Your task to perform on an android device: empty trash in the gmail app Image 0: 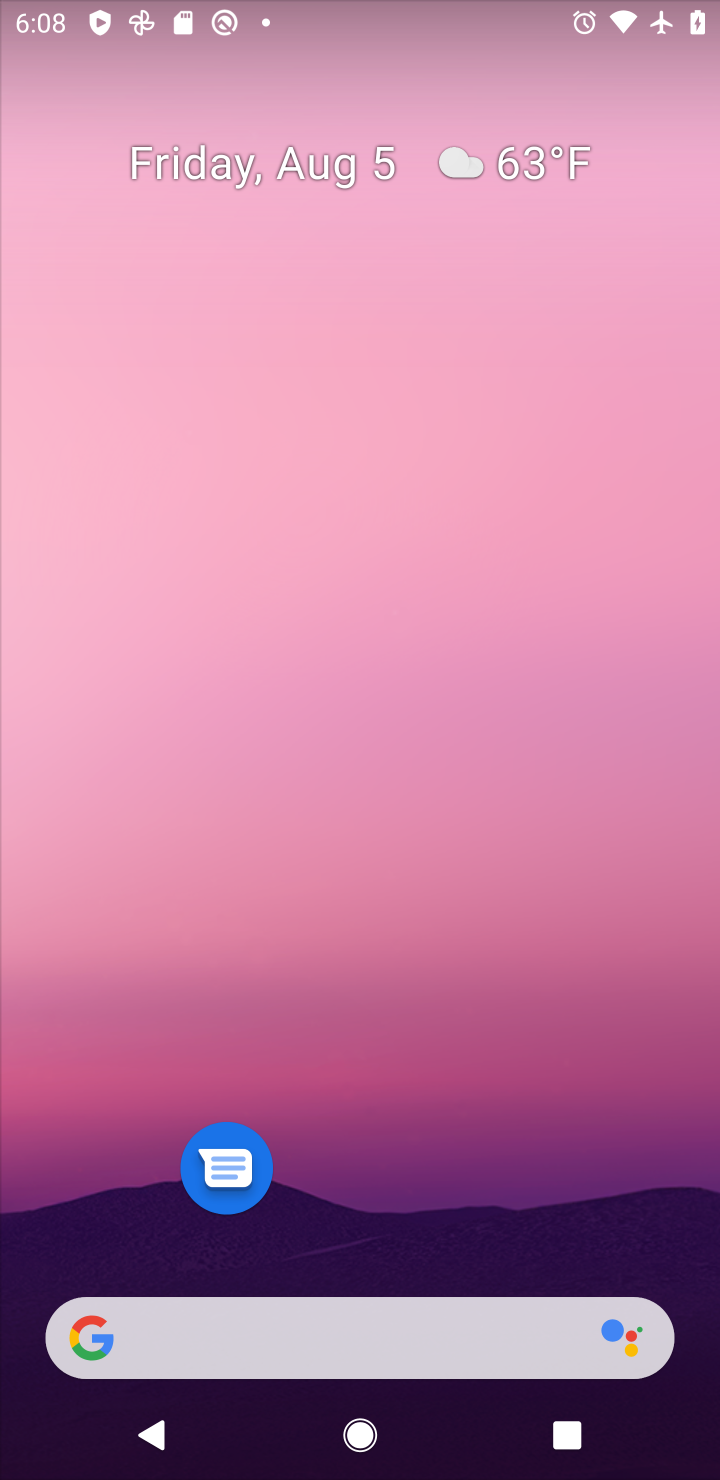
Step 0: press home button
Your task to perform on an android device: empty trash in the gmail app Image 1: 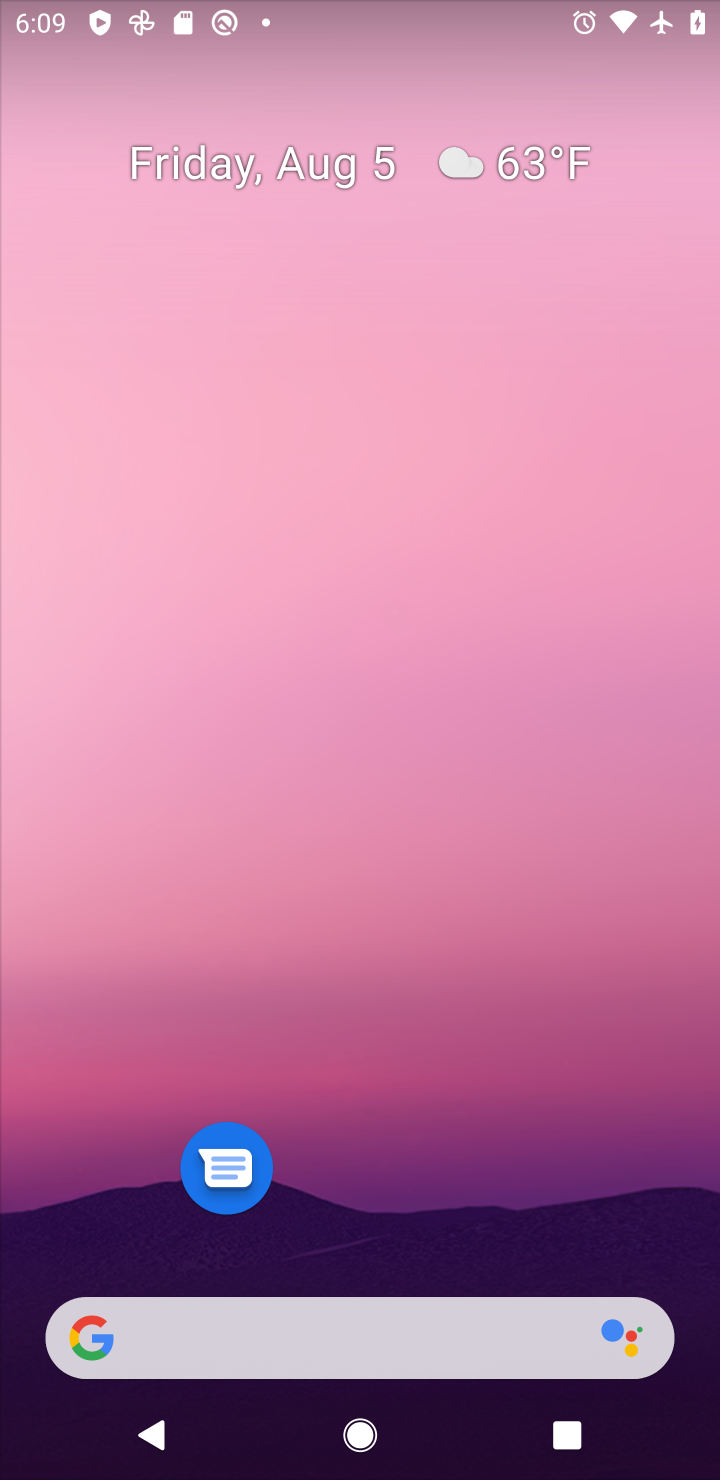
Step 1: drag from (376, 1261) to (457, 62)
Your task to perform on an android device: empty trash in the gmail app Image 2: 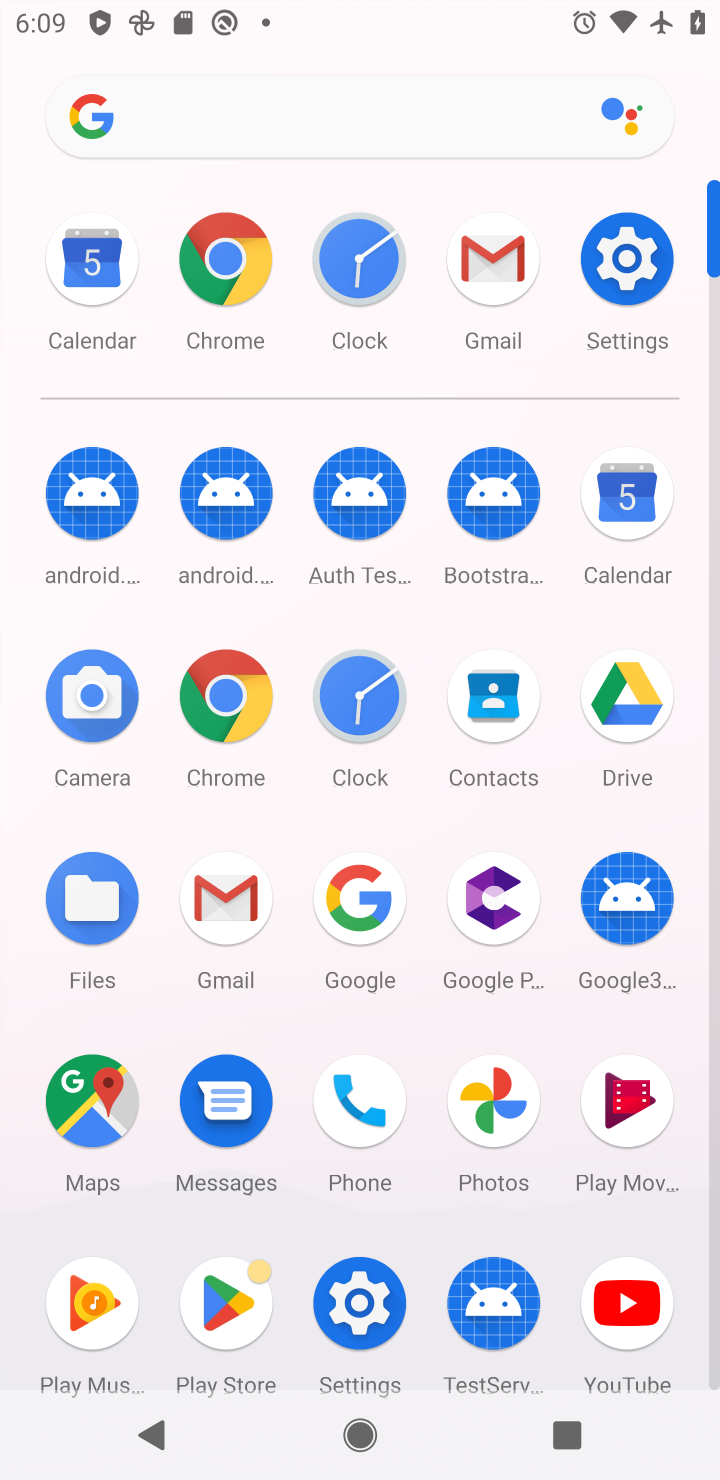
Step 2: click (223, 904)
Your task to perform on an android device: empty trash in the gmail app Image 3: 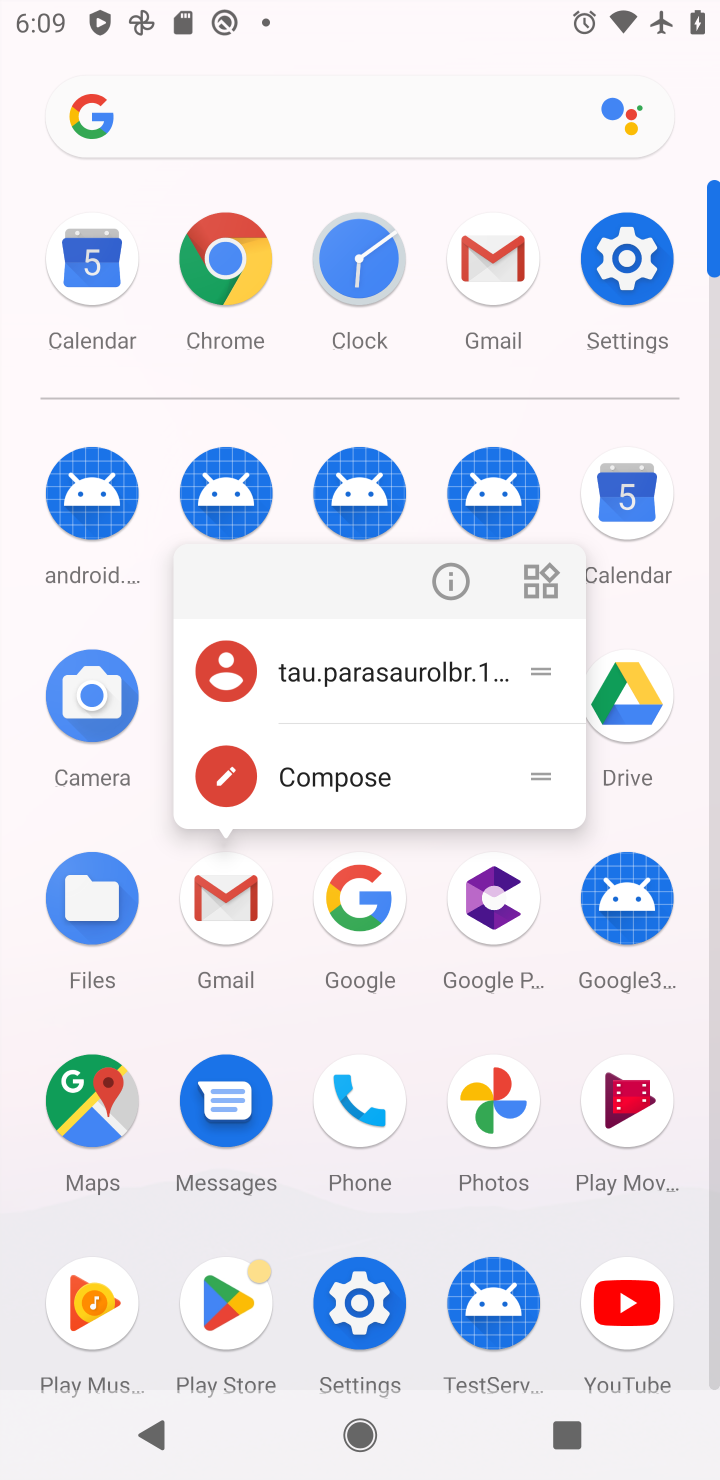
Step 3: click (223, 904)
Your task to perform on an android device: empty trash in the gmail app Image 4: 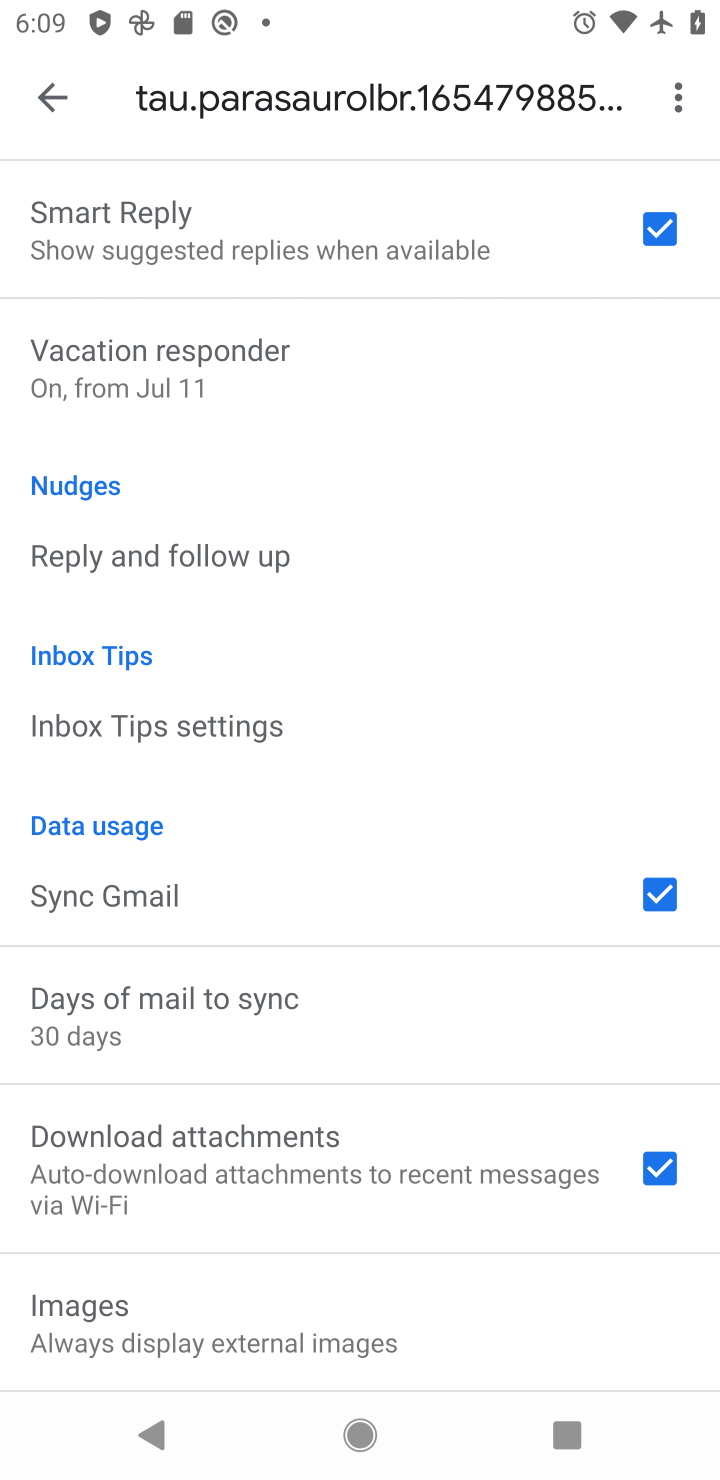
Step 4: click (56, 102)
Your task to perform on an android device: empty trash in the gmail app Image 5: 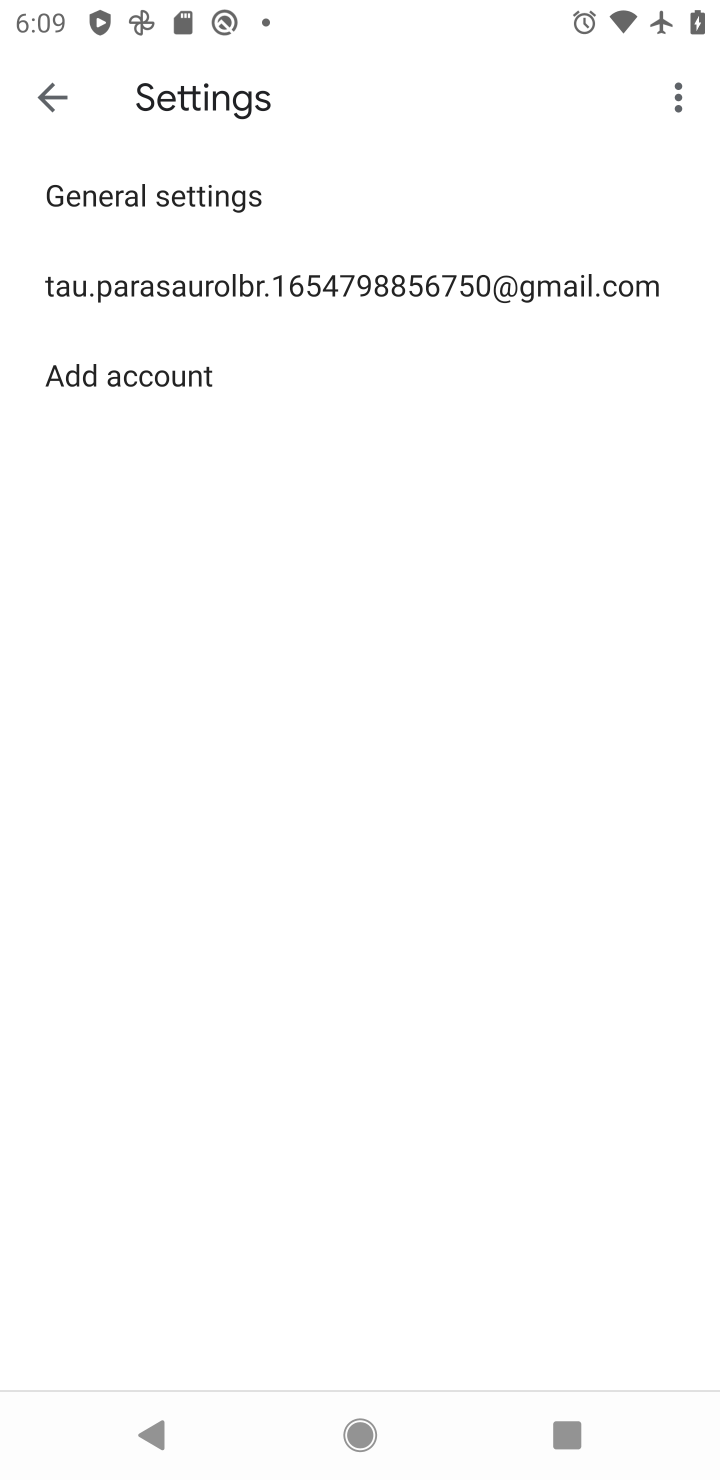
Step 5: click (56, 101)
Your task to perform on an android device: empty trash in the gmail app Image 6: 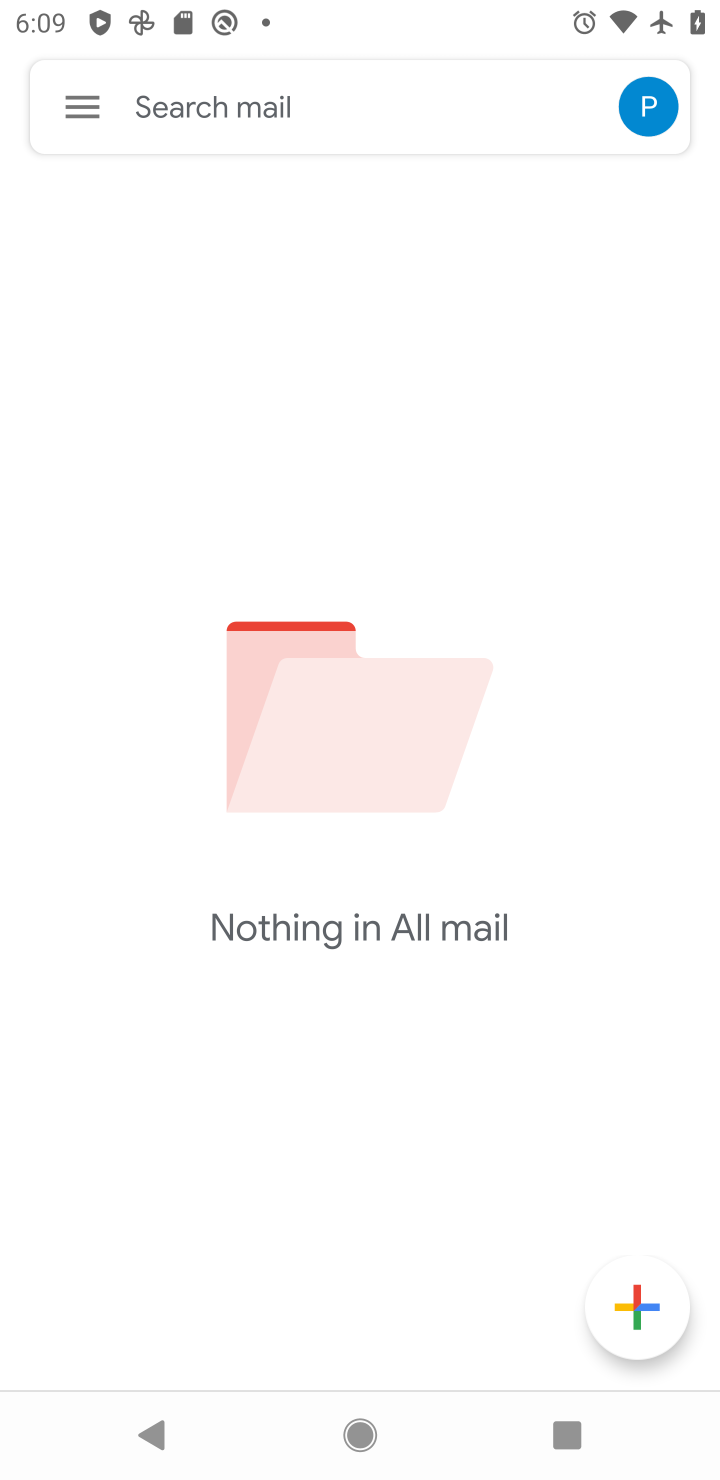
Step 6: click (70, 108)
Your task to perform on an android device: empty trash in the gmail app Image 7: 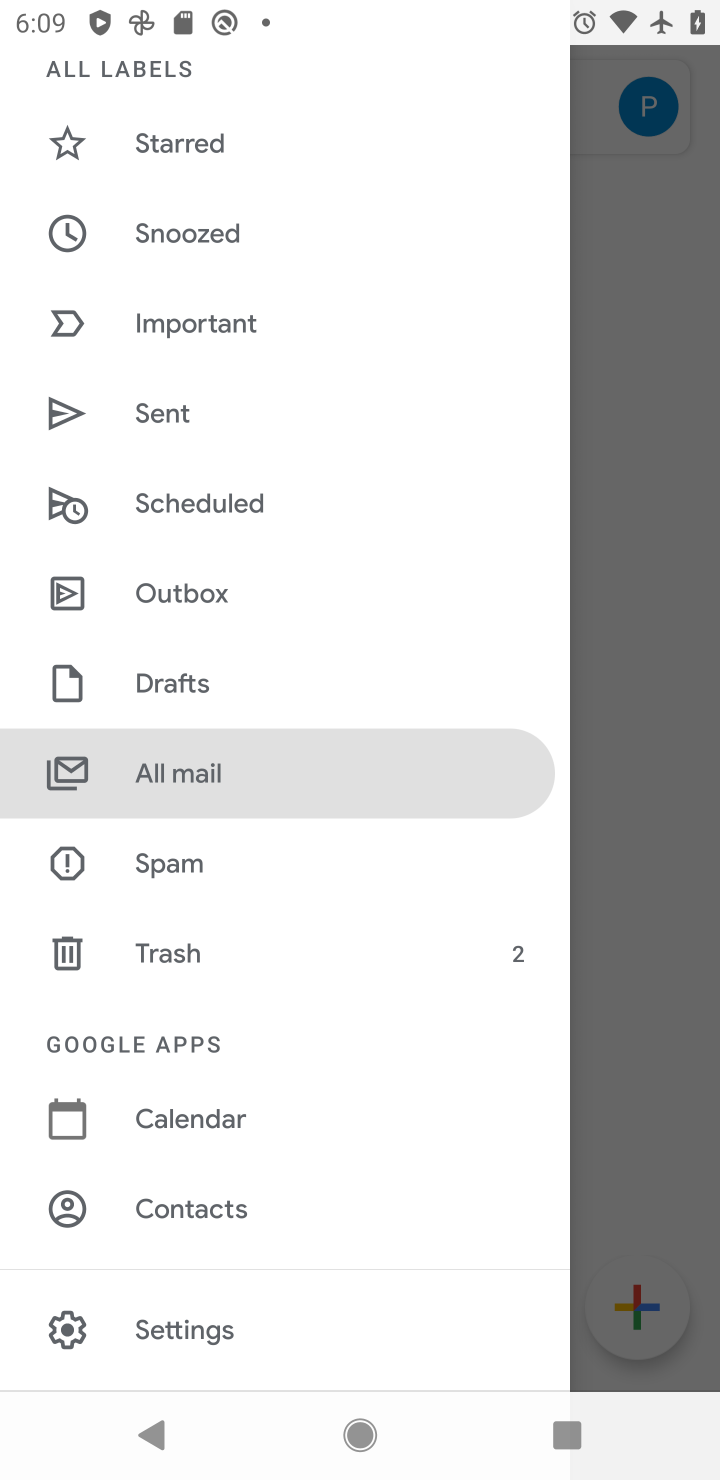
Step 7: click (175, 950)
Your task to perform on an android device: empty trash in the gmail app Image 8: 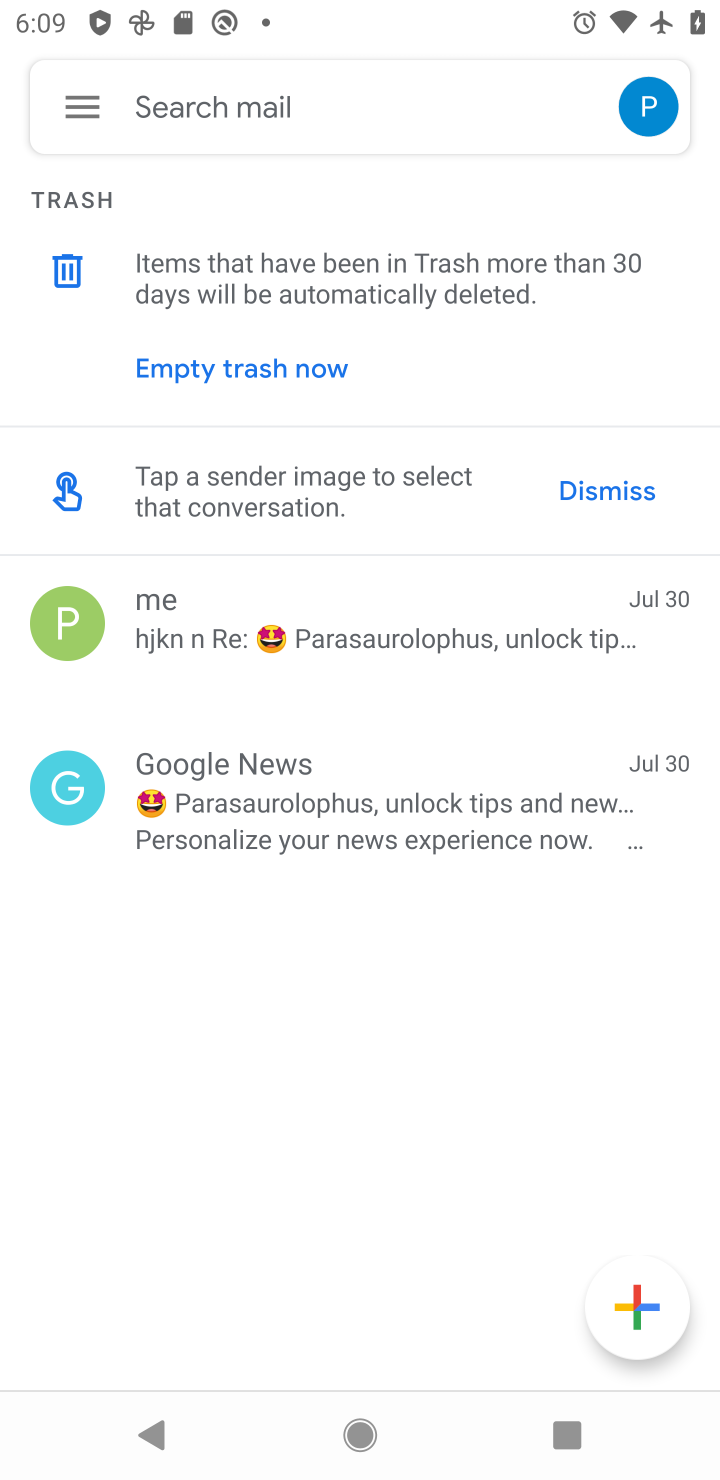
Step 8: click (244, 371)
Your task to perform on an android device: empty trash in the gmail app Image 9: 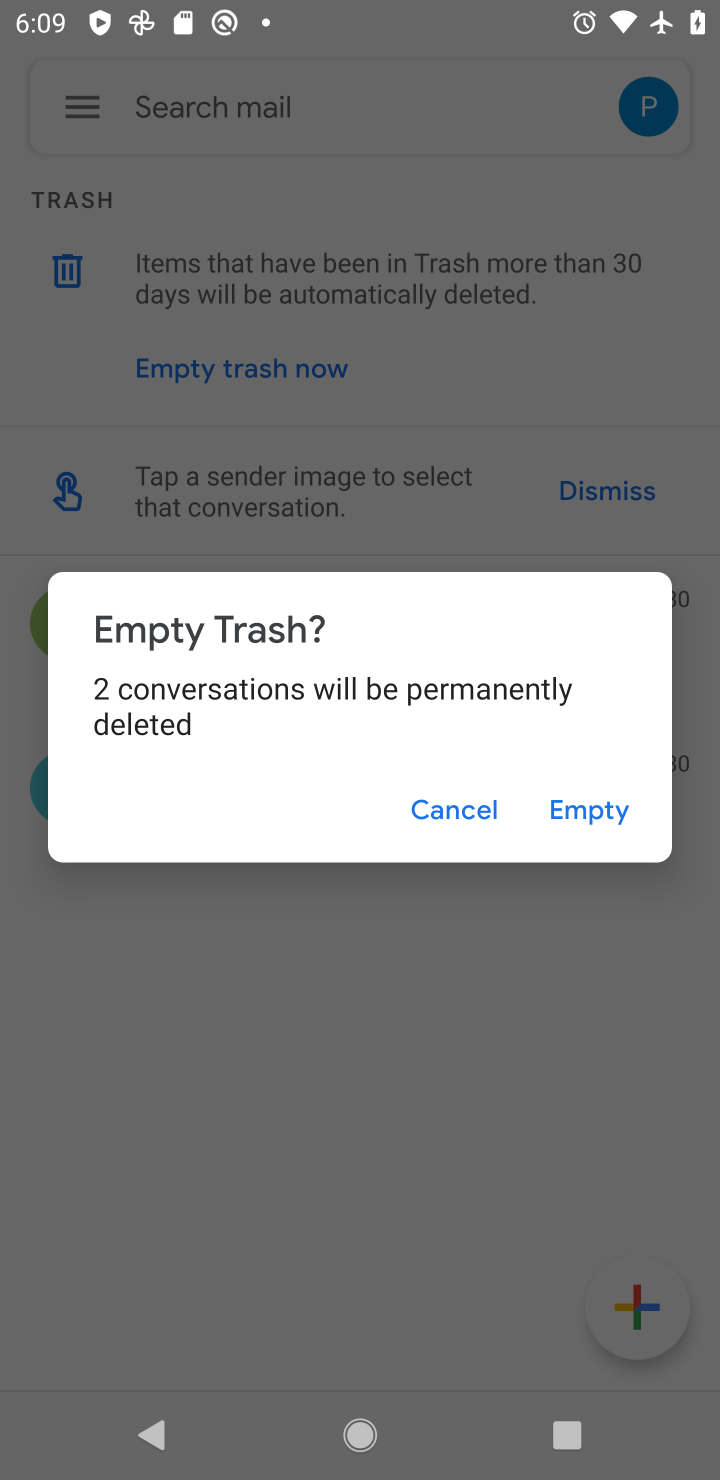
Step 9: click (584, 802)
Your task to perform on an android device: empty trash in the gmail app Image 10: 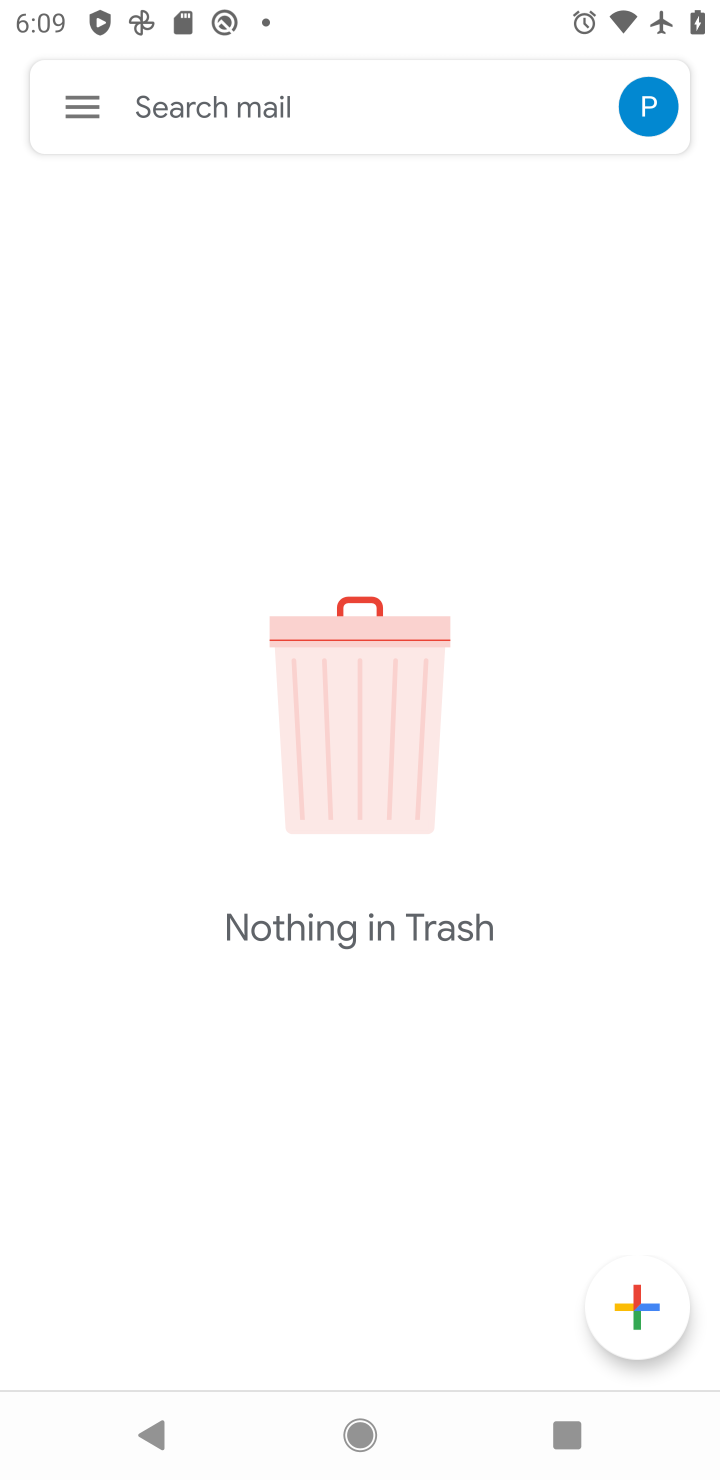
Step 10: task complete